Your task to perform on an android device: see tabs open on other devices in the chrome app Image 0: 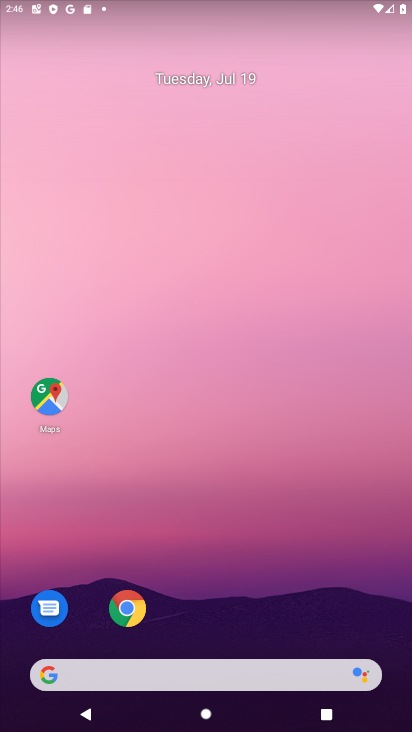
Step 0: drag from (293, 557) to (240, 1)
Your task to perform on an android device: see tabs open on other devices in the chrome app Image 1: 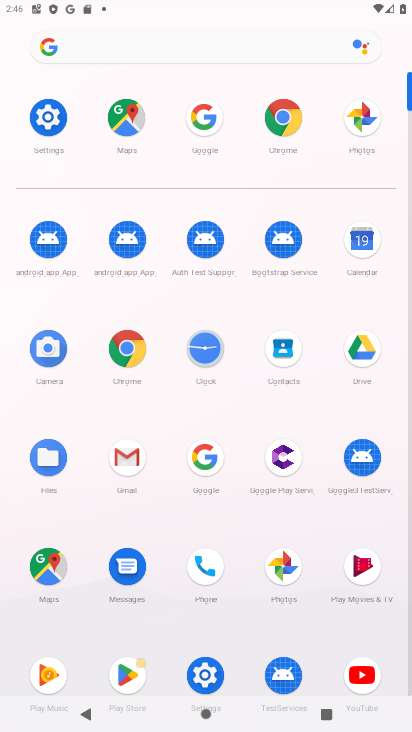
Step 1: click (288, 118)
Your task to perform on an android device: see tabs open on other devices in the chrome app Image 2: 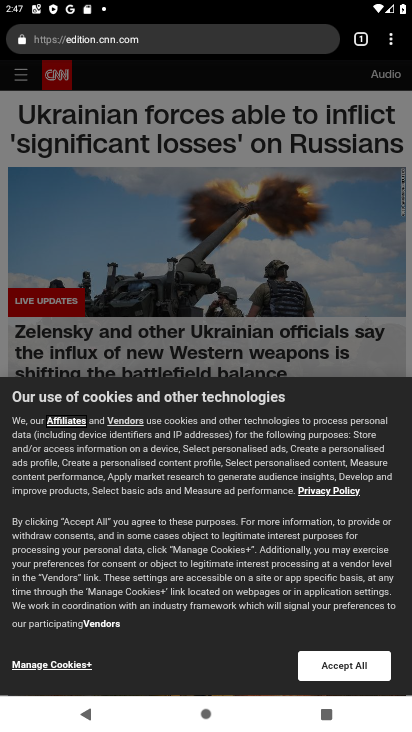
Step 2: task complete